Your task to perform on an android device: open app "Reddit" (install if not already installed) and enter user name: "issues@yahoo.com" and password: "belt" Image 0: 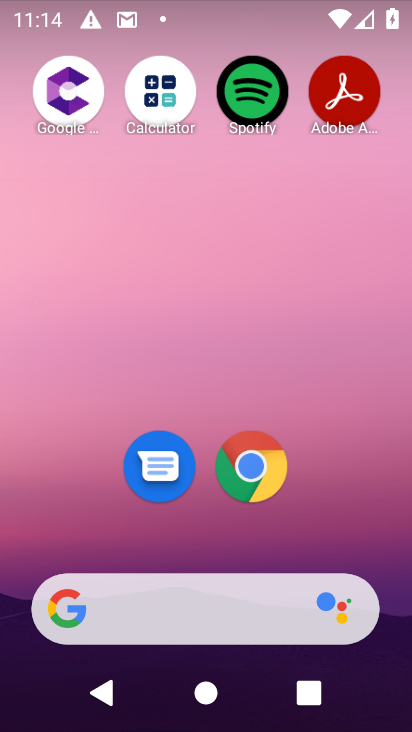
Step 0: drag from (249, 371) to (323, 18)
Your task to perform on an android device: open app "Reddit" (install if not already installed) and enter user name: "issues@yahoo.com" and password: "belt" Image 1: 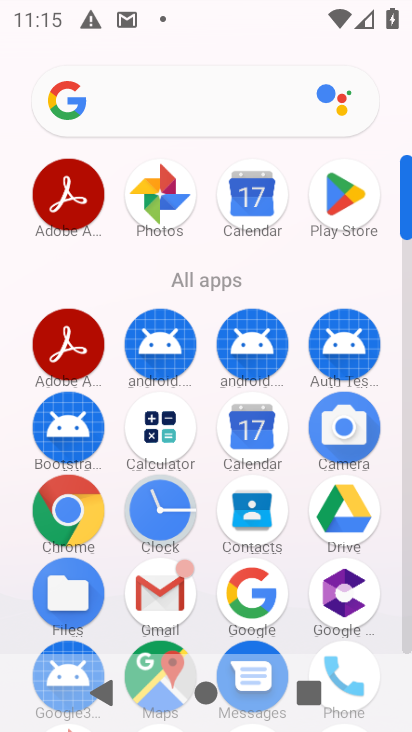
Step 1: click (358, 176)
Your task to perform on an android device: open app "Reddit" (install if not already installed) and enter user name: "issues@yahoo.com" and password: "belt" Image 2: 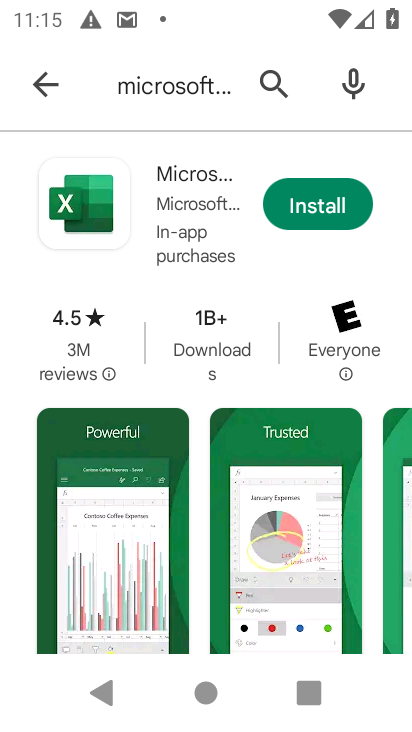
Step 2: click (56, 88)
Your task to perform on an android device: open app "Reddit" (install if not already installed) and enter user name: "issues@yahoo.com" and password: "belt" Image 3: 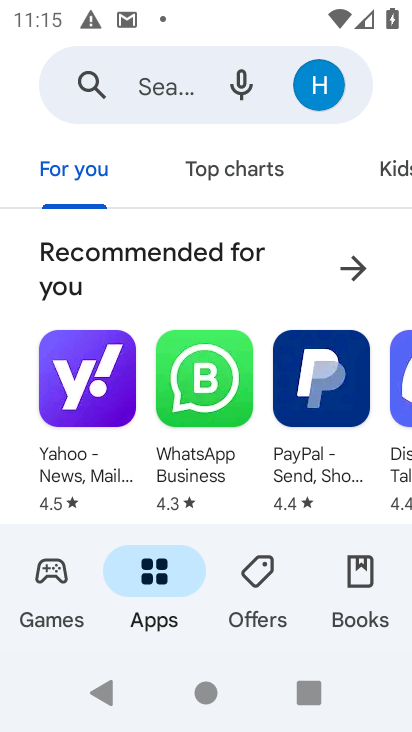
Step 3: click (185, 75)
Your task to perform on an android device: open app "Reddit" (install if not already installed) and enter user name: "issues@yahoo.com" and password: "belt" Image 4: 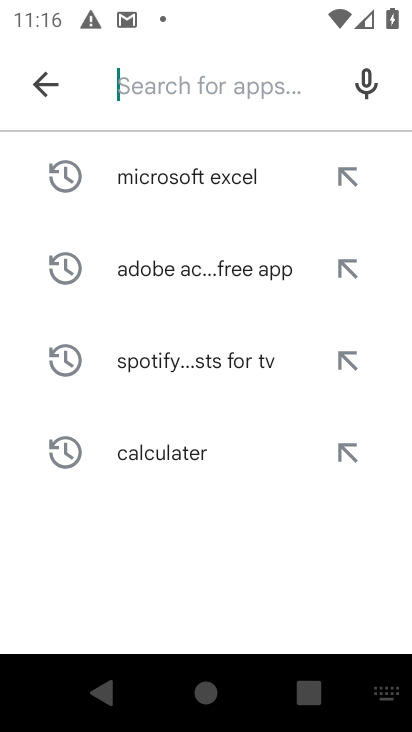
Step 4: type "Reddit"
Your task to perform on an android device: open app "Reddit" (install if not already installed) and enter user name: "issues@yahoo.com" and password: "belt" Image 5: 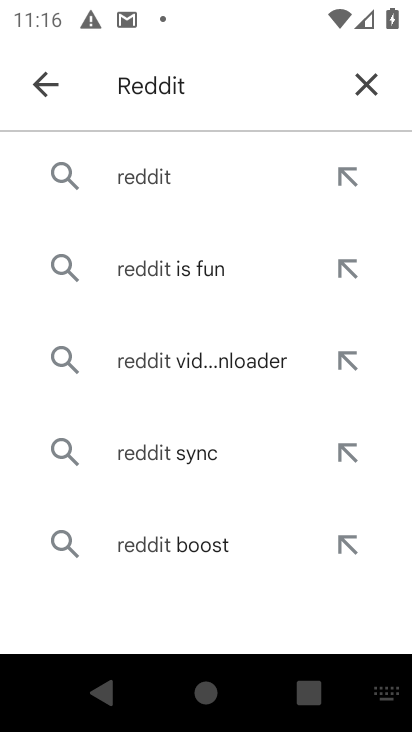
Step 5: click (205, 173)
Your task to perform on an android device: open app "Reddit" (install if not already installed) and enter user name: "issues@yahoo.com" and password: "belt" Image 6: 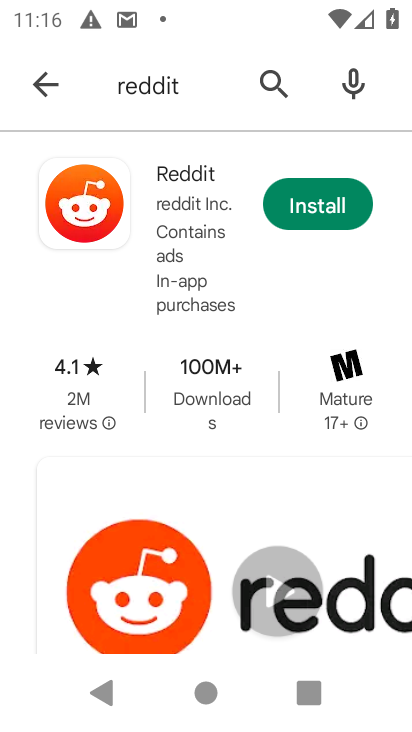
Step 6: click (310, 207)
Your task to perform on an android device: open app "Reddit" (install if not already installed) and enter user name: "issues@yahoo.com" and password: "belt" Image 7: 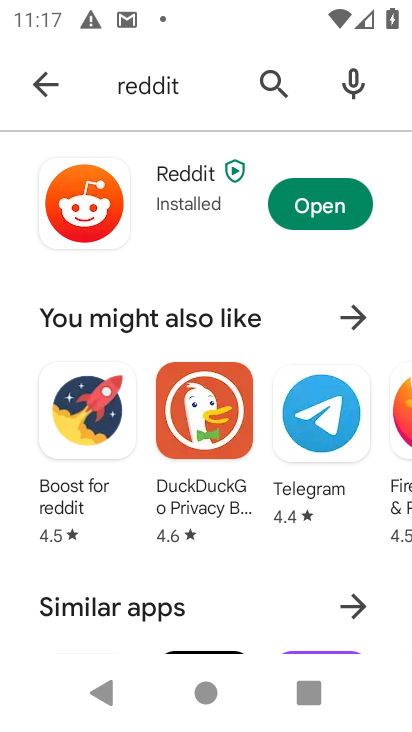
Step 7: click (328, 219)
Your task to perform on an android device: open app "Reddit" (install if not already installed) and enter user name: "issues@yahoo.com" and password: "belt" Image 8: 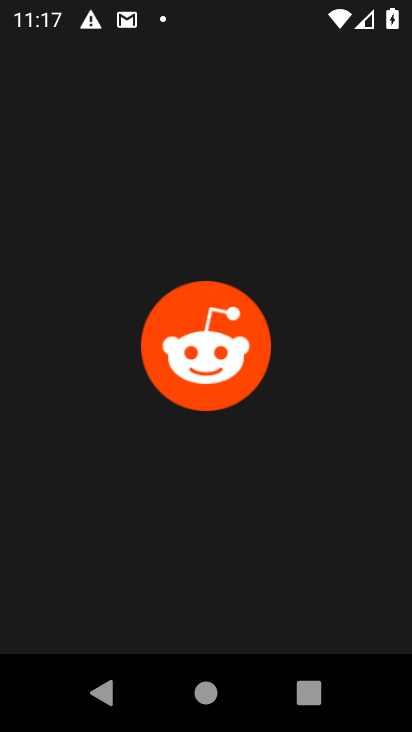
Step 8: task complete